Your task to perform on an android device: Open Yahoo.com Image 0: 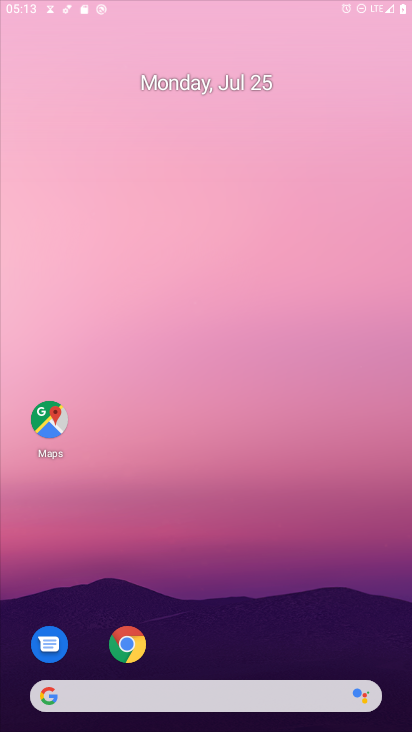
Step 0: press home button
Your task to perform on an android device: Open Yahoo.com Image 1: 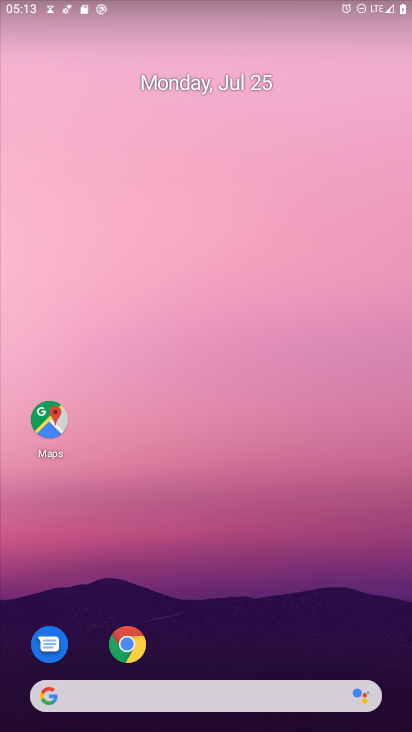
Step 1: click (51, 697)
Your task to perform on an android device: Open Yahoo.com Image 2: 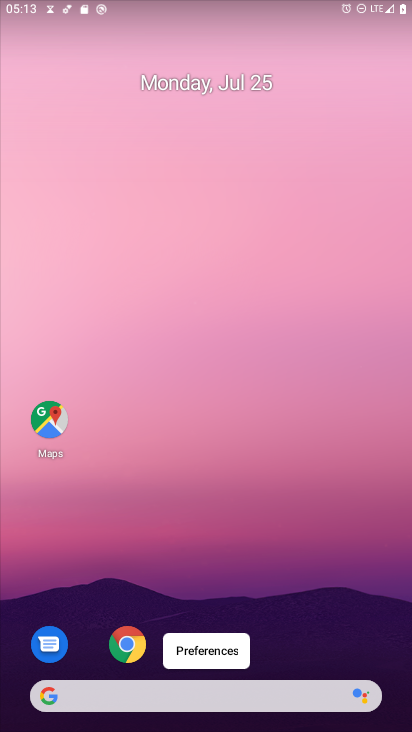
Step 2: click (49, 693)
Your task to perform on an android device: Open Yahoo.com Image 3: 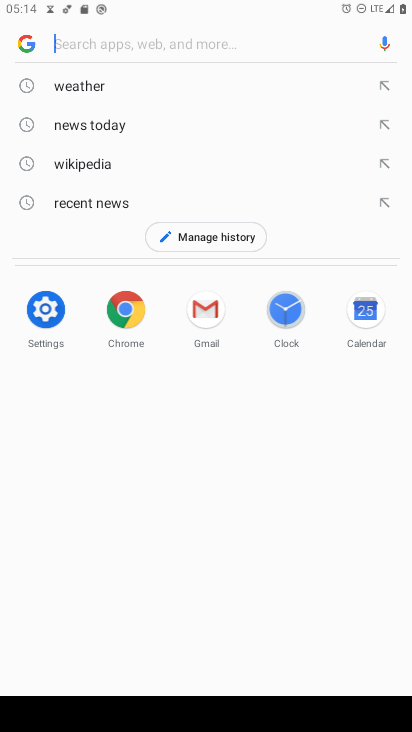
Step 3: type "Yahoo.com"
Your task to perform on an android device: Open Yahoo.com Image 4: 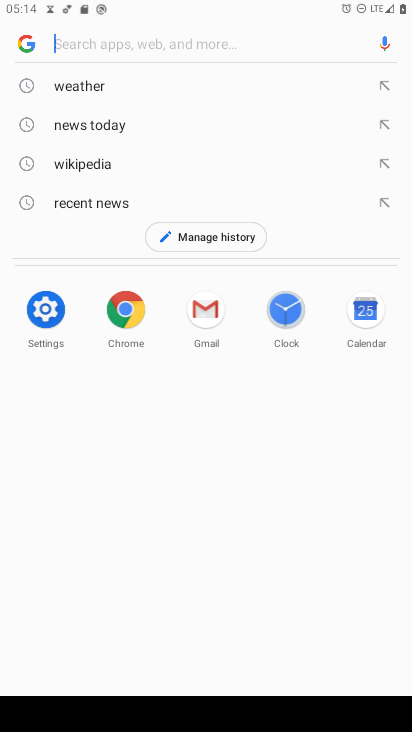
Step 4: click (66, 45)
Your task to perform on an android device: Open Yahoo.com Image 5: 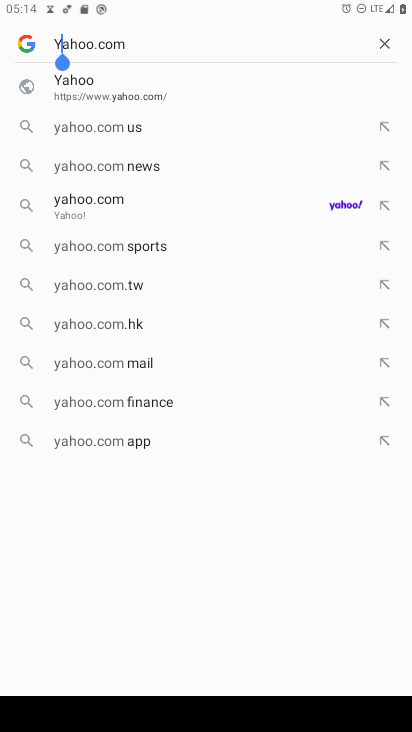
Step 5: click (140, 97)
Your task to perform on an android device: Open Yahoo.com Image 6: 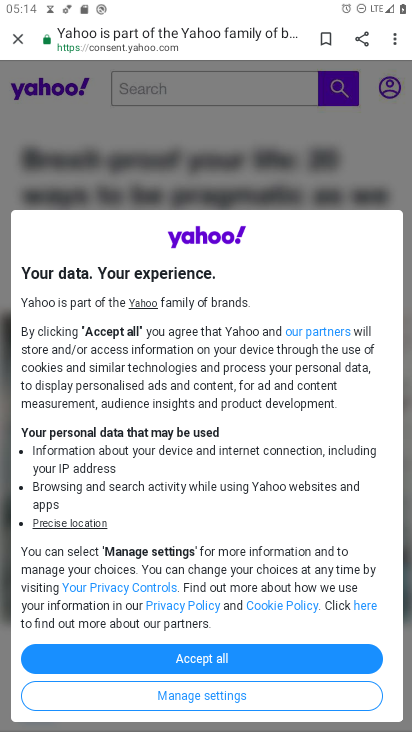
Step 6: click (190, 662)
Your task to perform on an android device: Open Yahoo.com Image 7: 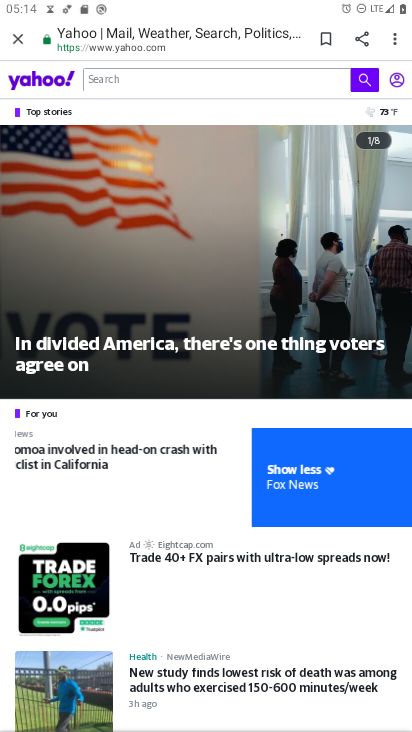
Step 7: task complete